Your task to perform on an android device: turn on improve location accuracy Image 0: 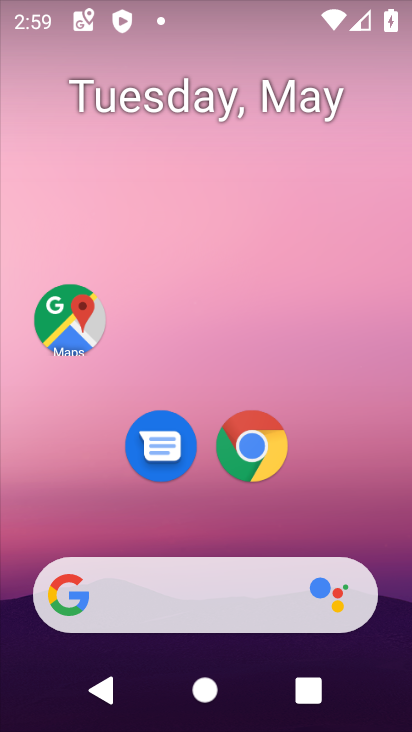
Step 0: drag from (82, 547) to (195, 144)
Your task to perform on an android device: turn on improve location accuracy Image 1: 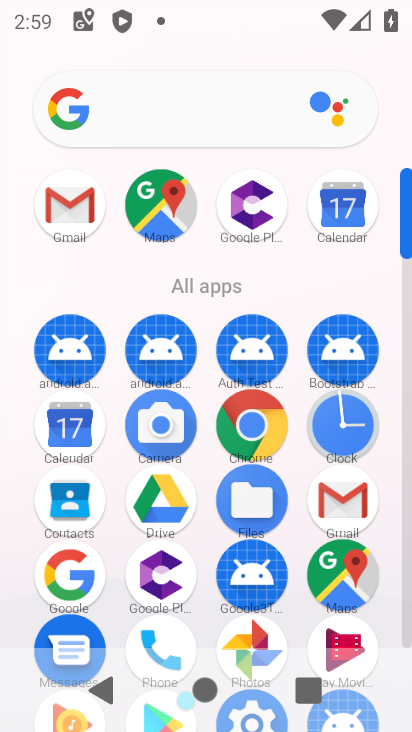
Step 1: drag from (162, 675) to (250, 288)
Your task to perform on an android device: turn on improve location accuracy Image 2: 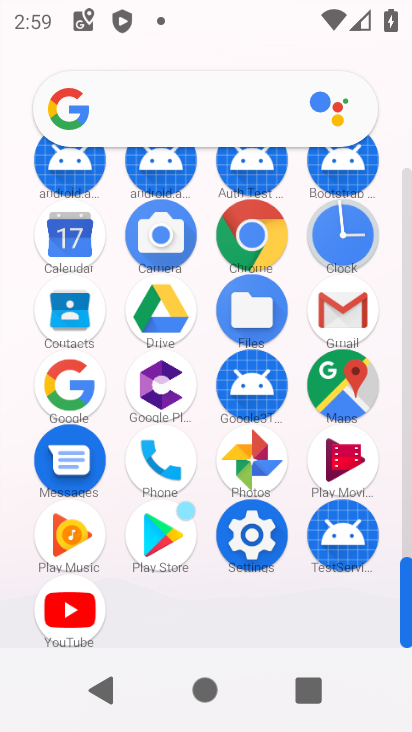
Step 2: click (268, 542)
Your task to perform on an android device: turn on improve location accuracy Image 3: 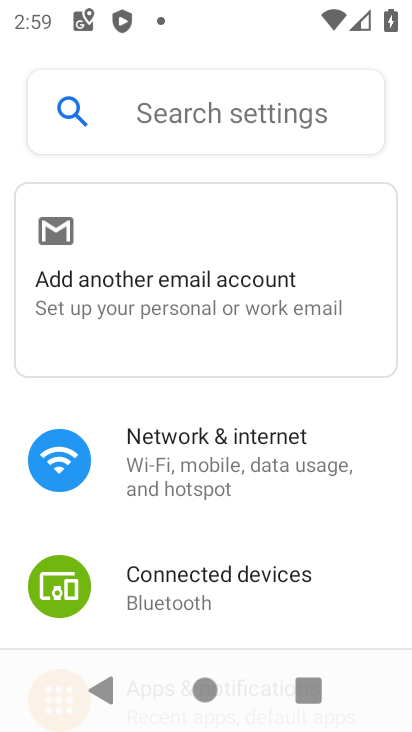
Step 3: drag from (186, 550) to (292, 136)
Your task to perform on an android device: turn on improve location accuracy Image 4: 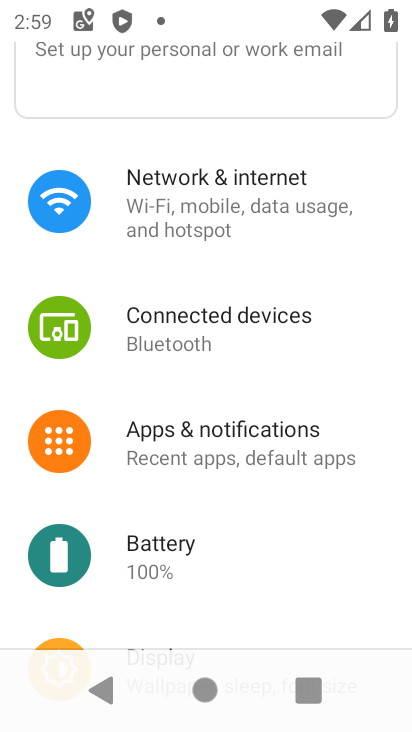
Step 4: drag from (226, 551) to (304, 192)
Your task to perform on an android device: turn on improve location accuracy Image 5: 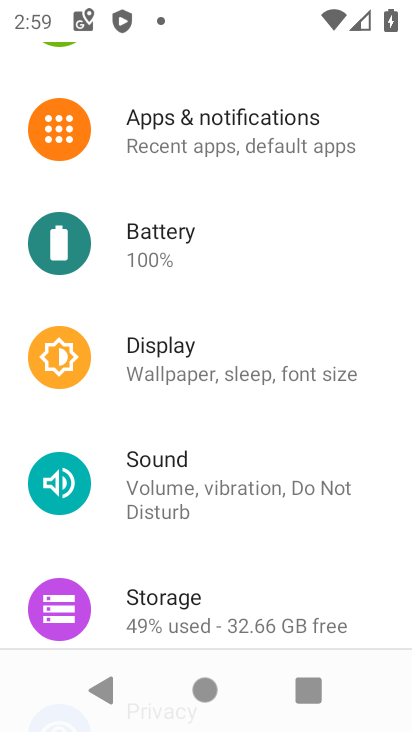
Step 5: drag from (190, 587) to (254, 153)
Your task to perform on an android device: turn on improve location accuracy Image 6: 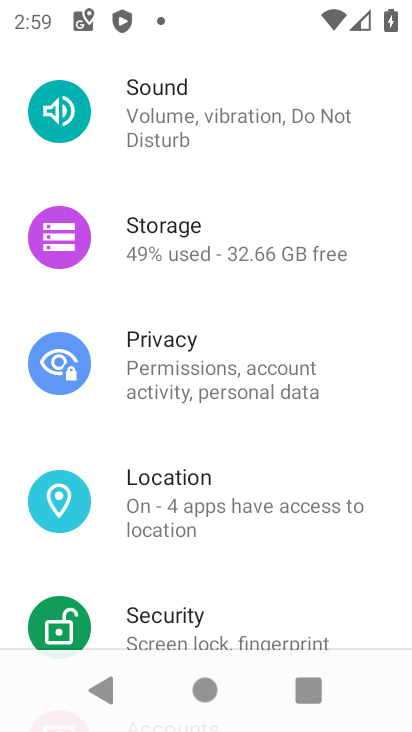
Step 6: drag from (247, 596) to (304, 236)
Your task to perform on an android device: turn on improve location accuracy Image 7: 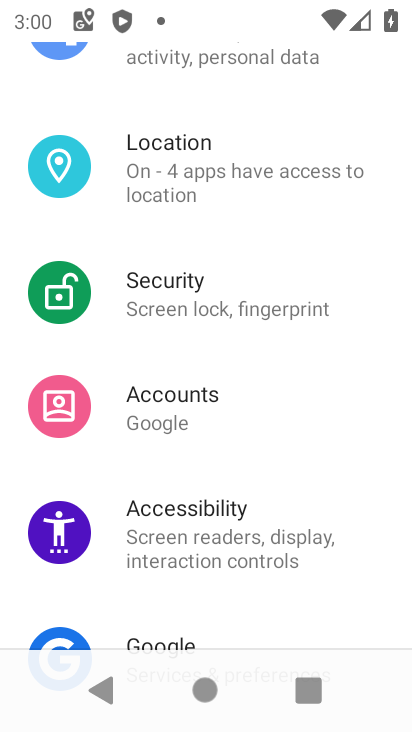
Step 7: click (257, 190)
Your task to perform on an android device: turn on improve location accuracy Image 8: 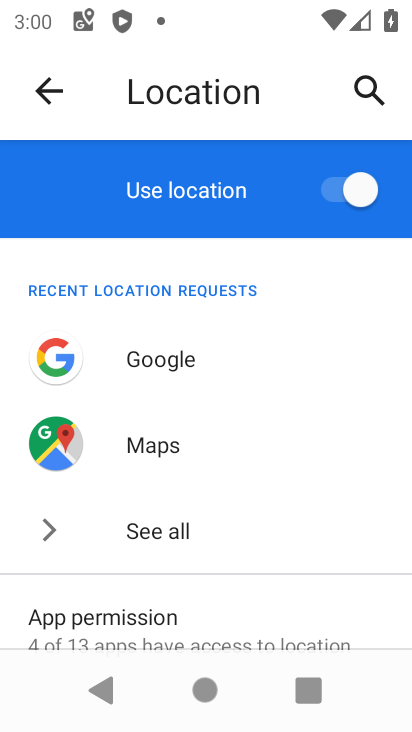
Step 8: drag from (199, 576) to (261, 310)
Your task to perform on an android device: turn on improve location accuracy Image 9: 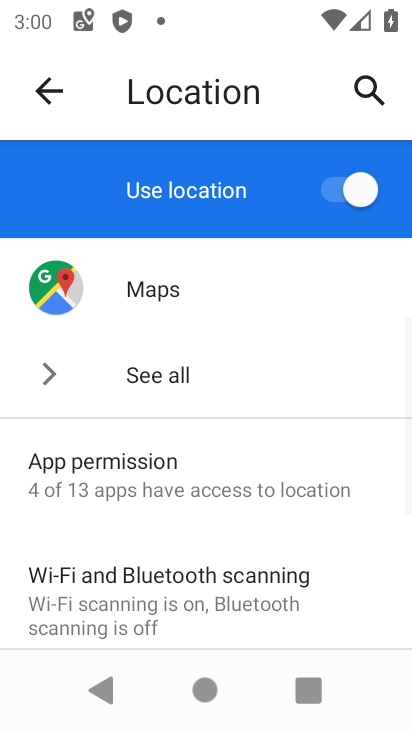
Step 9: drag from (219, 535) to (271, 278)
Your task to perform on an android device: turn on improve location accuracy Image 10: 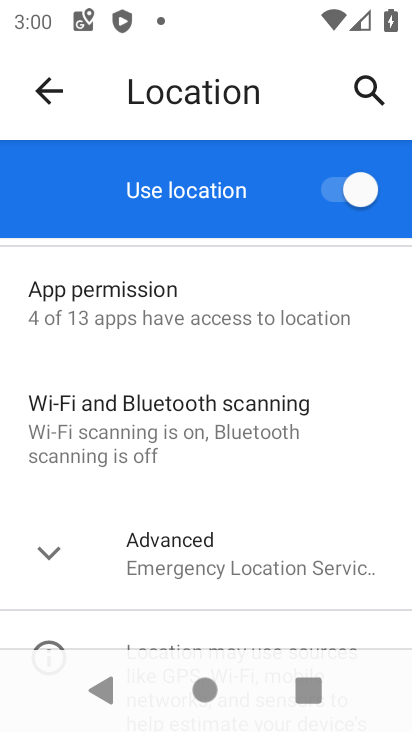
Step 10: click (222, 545)
Your task to perform on an android device: turn on improve location accuracy Image 11: 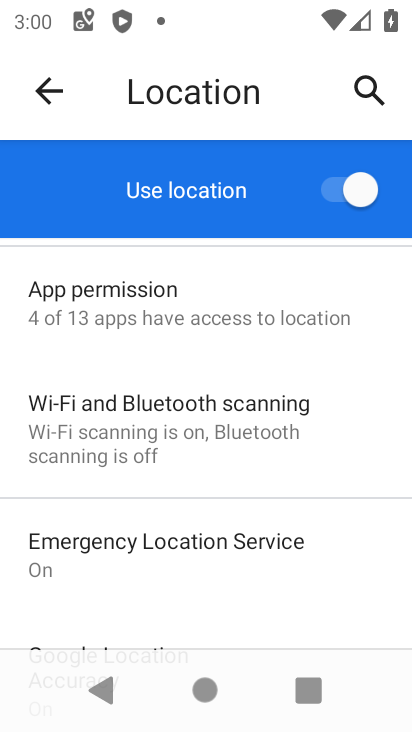
Step 11: drag from (222, 605) to (287, 334)
Your task to perform on an android device: turn on improve location accuracy Image 12: 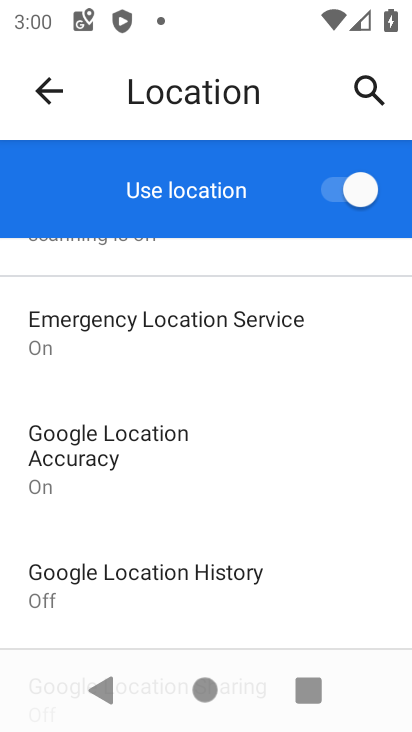
Step 12: drag from (230, 637) to (260, 570)
Your task to perform on an android device: turn on improve location accuracy Image 13: 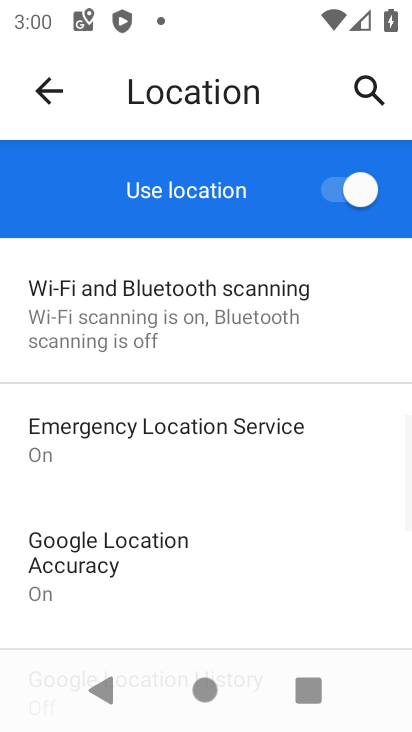
Step 13: click (217, 565)
Your task to perform on an android device: turn on improve location accuracy Image 14: 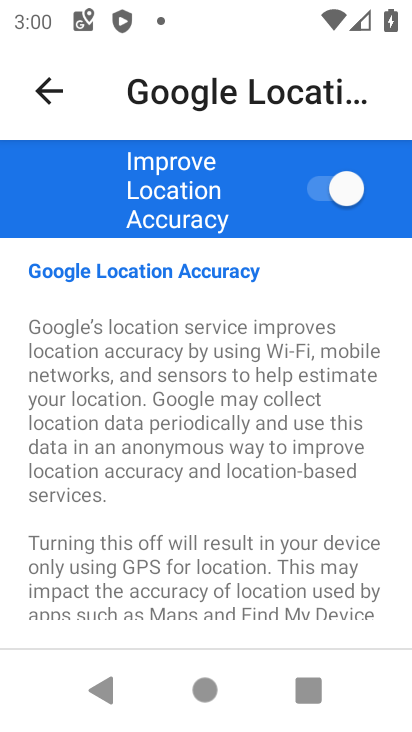
Step 14: task complete